Your task to perform on an android device: Go to calendar. Show me events next week Image 0: 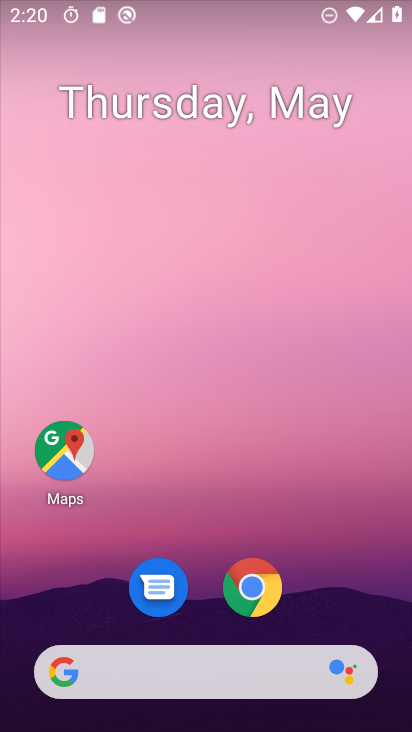
Step 0: drag from (349, 580) to (331, 107)
Your task to perform on an android device: Go to calendar. Show me events next week Image 1: 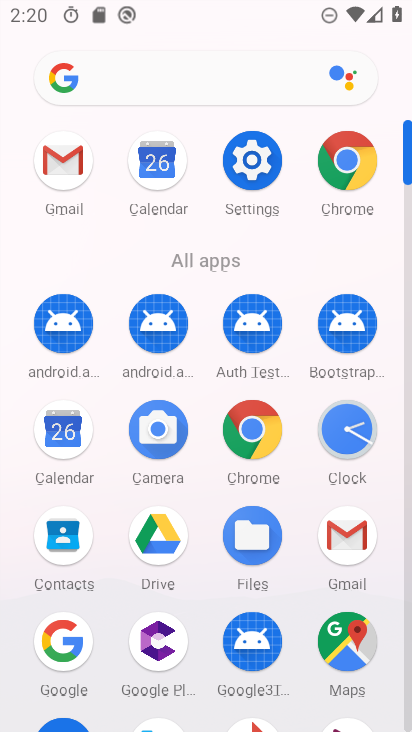
Step 1: click (69, 434)
Your task to perform on an android device: Go to calendar. Show me events next week Image 2: 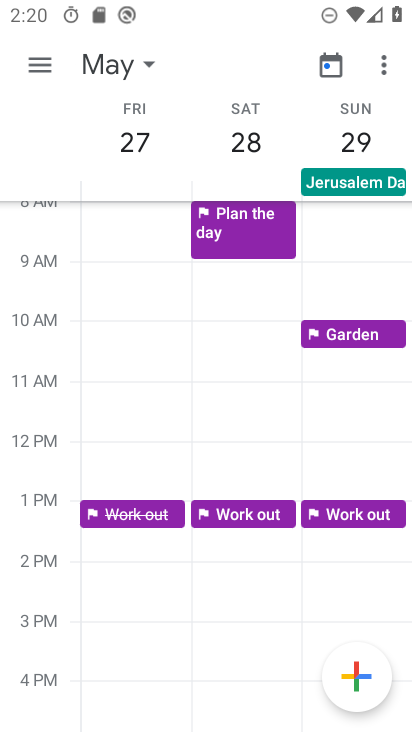
Step 2: click (111, 61)
Your task to perform on an android device: Go to calendar. Show me events next week Image 3: 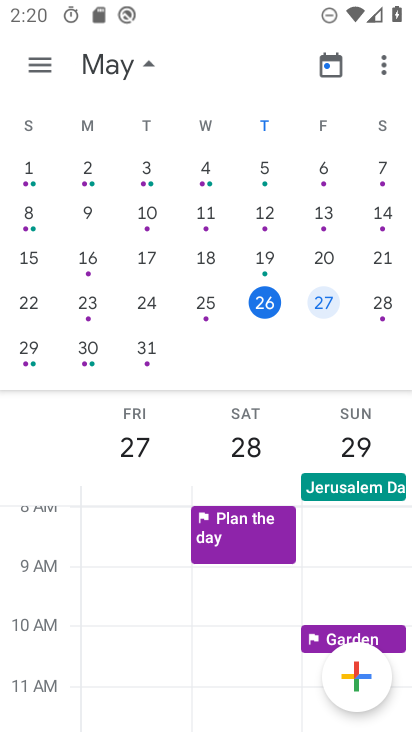
Step 3: click (95, 358)
Your task to perform on an android device: Go to calendar. Show me events next week Image 4: 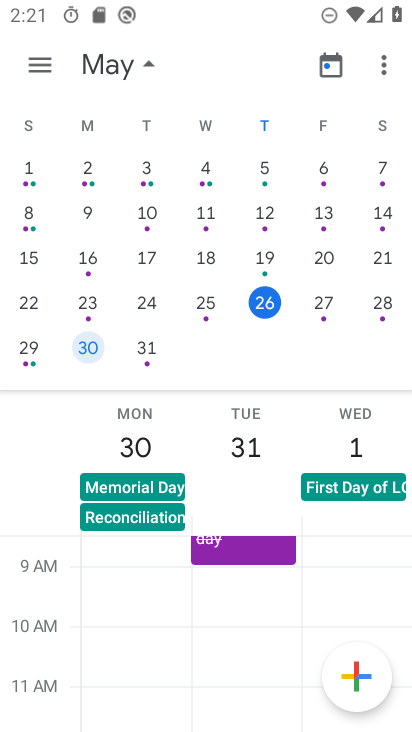
Step 4: drag from (215, 392) to (240, 0)
Your task to perform on an android device: Go to calendar. Show me events next week Image 5: 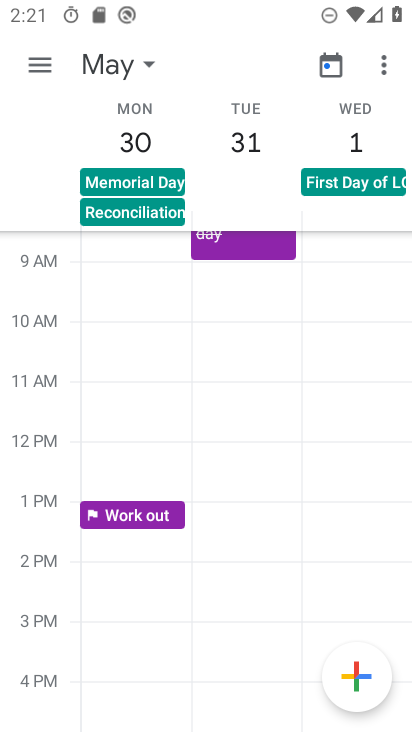
Step 5: click (58, 59)
Your task to perform on an android device: Go to calendar. Show me events next week Image 6: 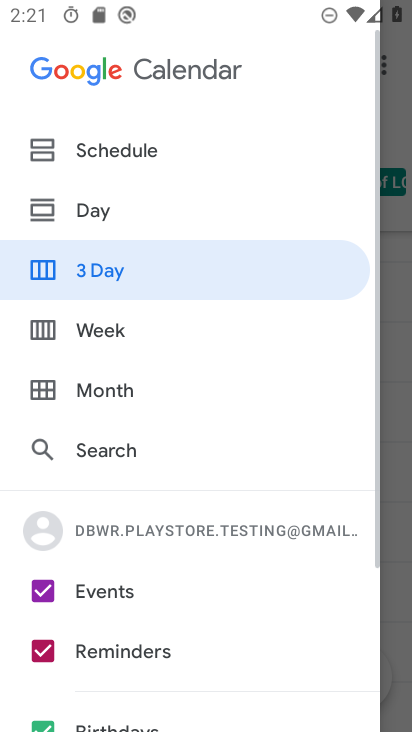
Step 6: click (95, 329)
Your task to perform on an android device: Go to calendar. Show me events next week Image 7: 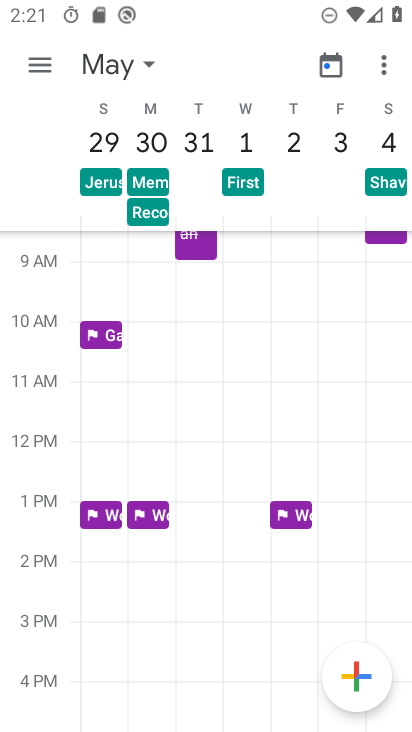
Step 7: task complete